Your task to perform on an android device: What's the weather? Image 0: 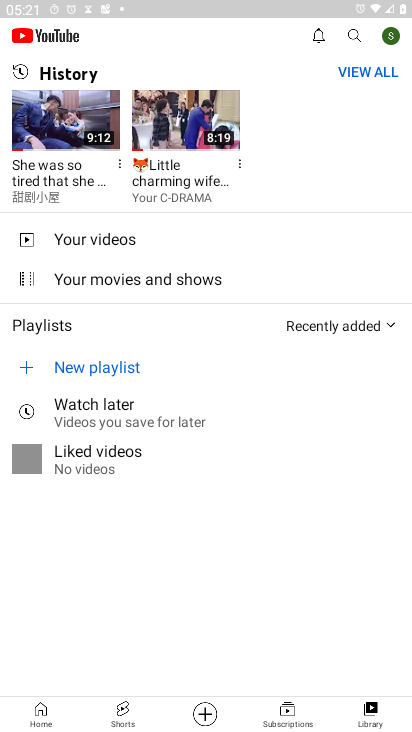
Step 0: press home button
Your task to perform on an android device: What's the weather? Image 1: 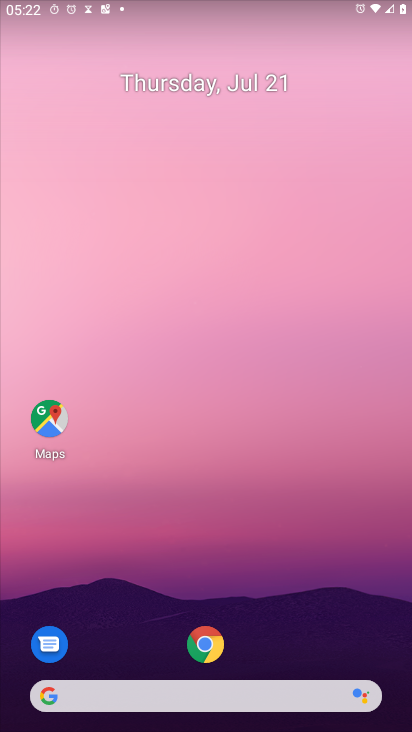
Step 1: click (44, 699)
Your task to perform on an android device: What's the weather? Image 2: 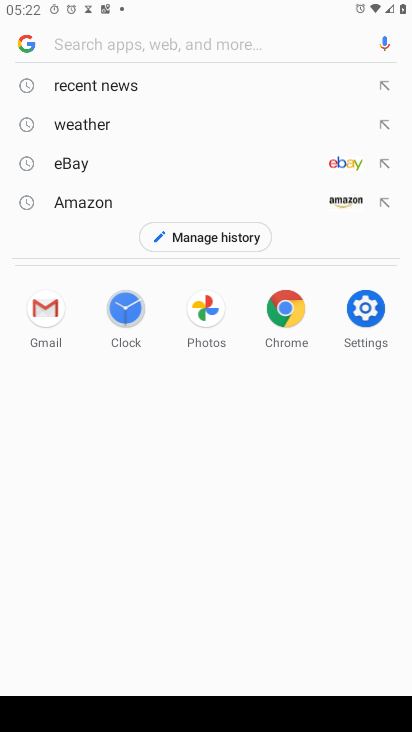
Step 2: click (111, 43)
Your task to perform on an android device: What's the weather? Image 3: 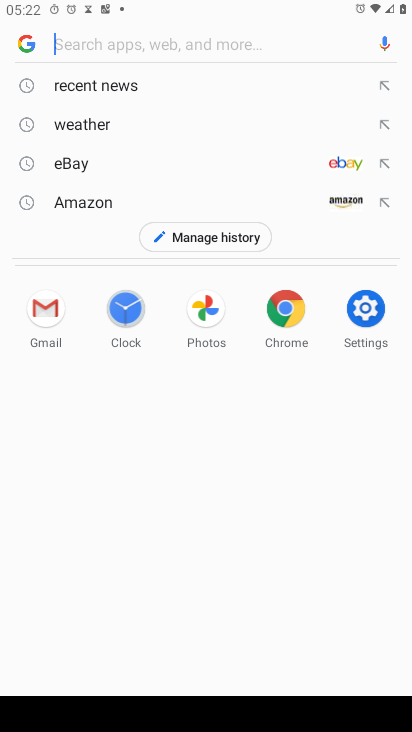
Step 3: type "What's the weather?"
Your task to perform on an android device: What's the weather? Image 4: 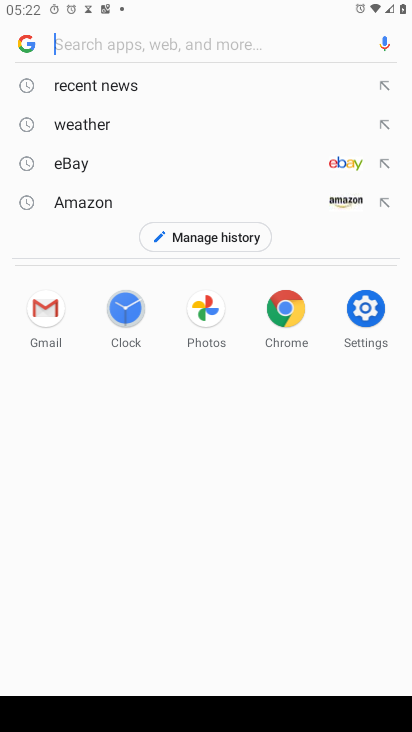
Step 4: click (111, 43)
Your task to perform on an android device: What's the weather? Image 5: 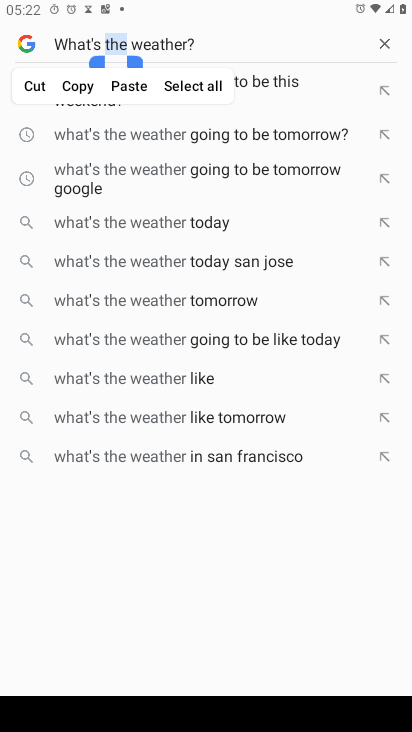
Step 5: click (101, 51)
Your task to perform on an android device: What's the weather? Image 6: 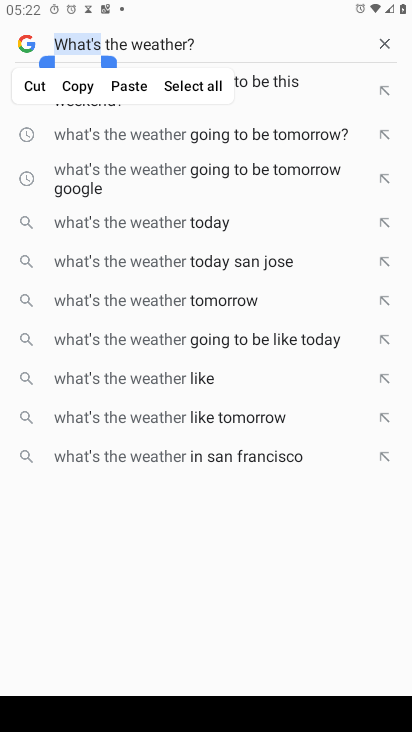
Step 6: press enter
Your task to perform on an android device: What's the weather? Image 7: 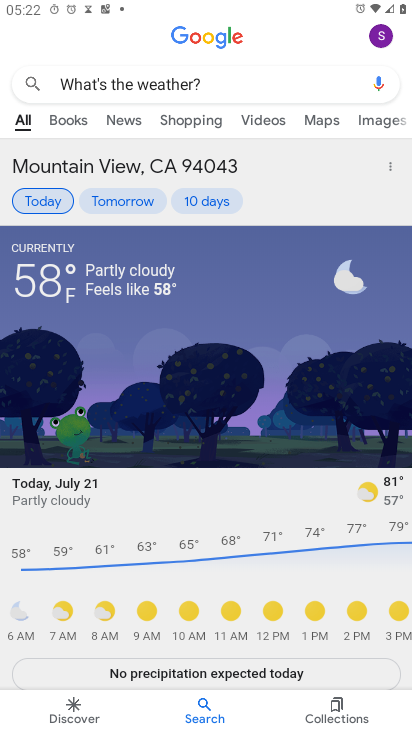
Step 7: task complete